Your task to perform on an android device: Open sound settings Image 0: 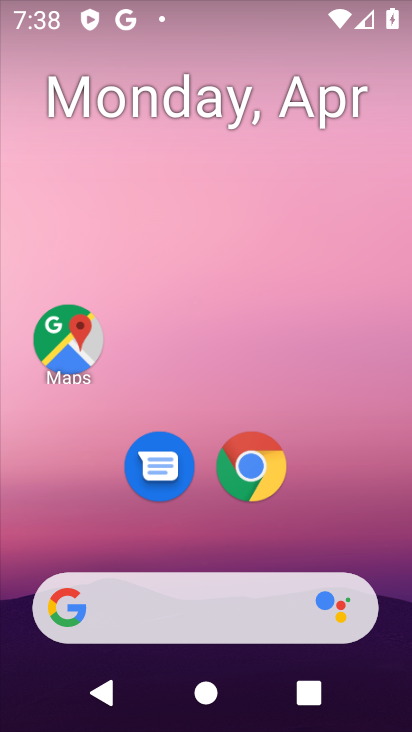
Step 0: drag from (211, 524) to (290, 73)
Your task to perform on an android device: Open sound settings Image 1: 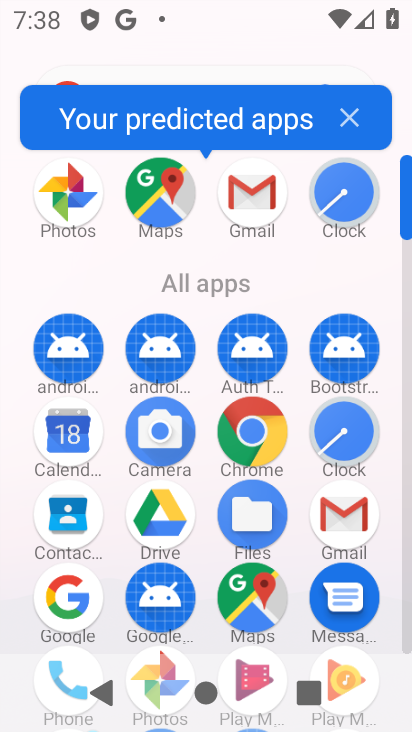
Step 1: drag from (217, 593) to (225, 229)
Your task to perform on an android device: Open sound settings Image 2: 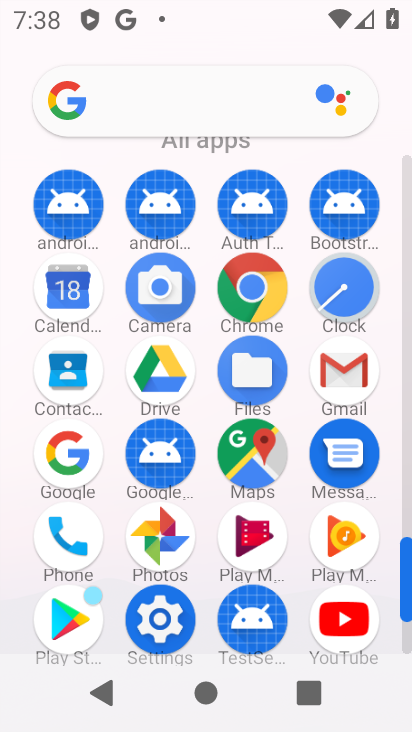
Step 2: click (147, 607)
Your task to perform on an android device: Open sound settings Image 3: 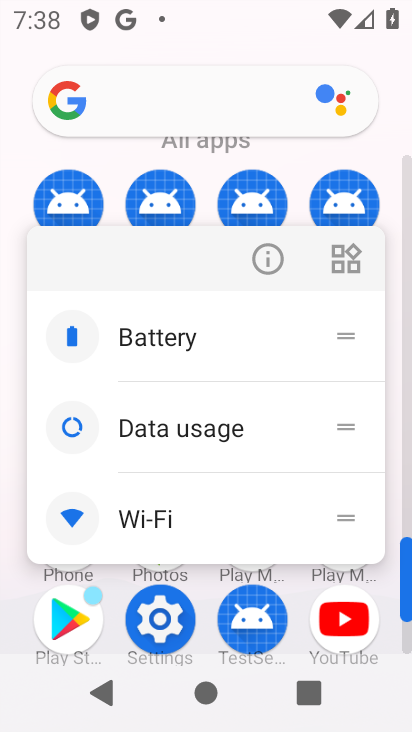
Step 3: click (256, 230)
Your task to perform on an android device: Open sound settings Image 4: 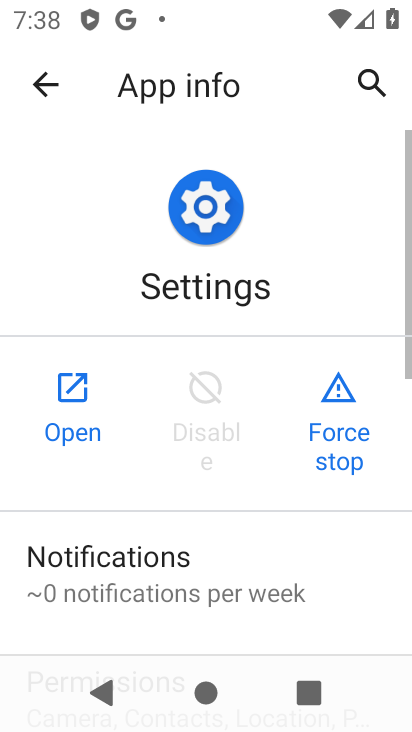
Step 4: click (73, 400)
Your task to perform on an android device: Open sound settings Image 5: 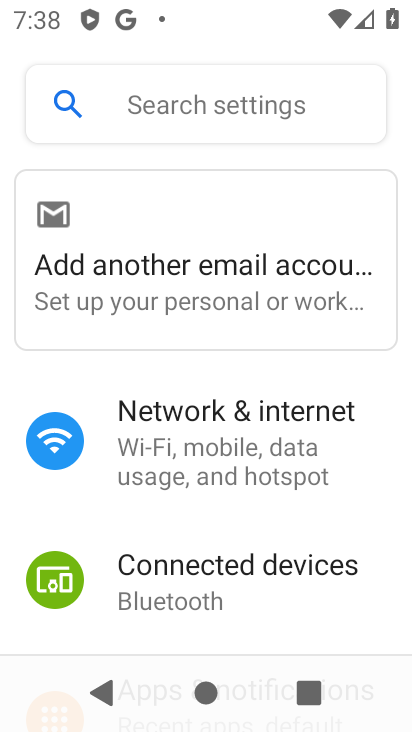
Step 5: drag from (281, 543) to (343, 74)
Your task to perform on an android device: Open sound settings Image 6: 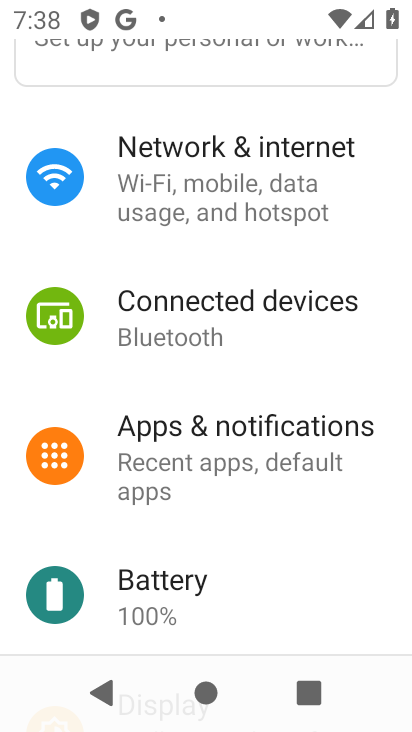
Step 6: drag from (232, 561) to (350, 149)
Your task to perform on an android device: Open sound settings Image 7: 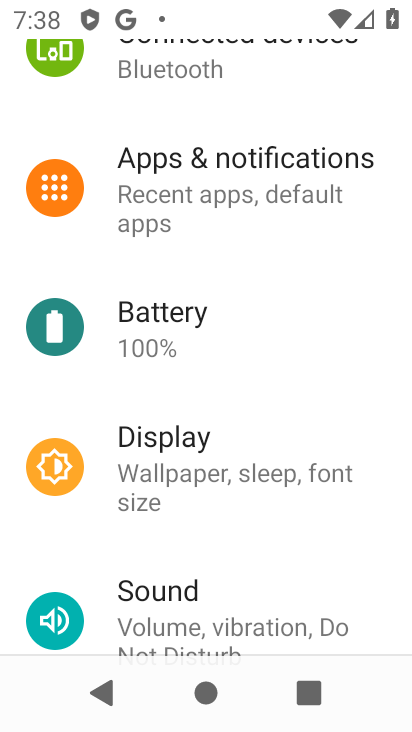
Step 7: click (265, 604)
Your task to perform on an android device: Open sound settings Image 8: 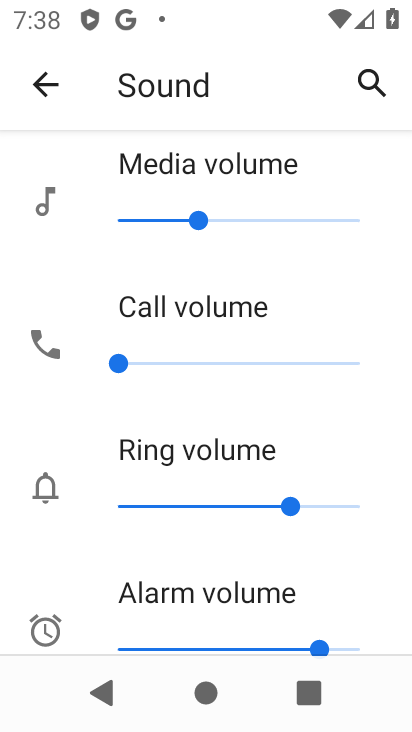
Step 8: task complete